Your task to perform on an android device: delete location history Image 0: 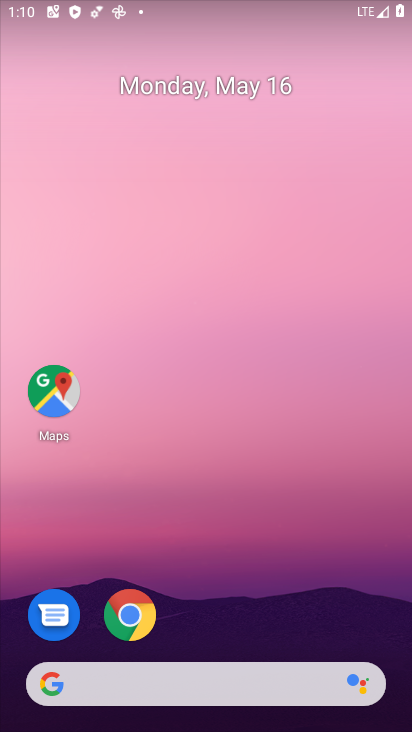
Step 0: drag from (185, 654) to (219, 184)
Your task to perform on an android device: delete location history Image 1: 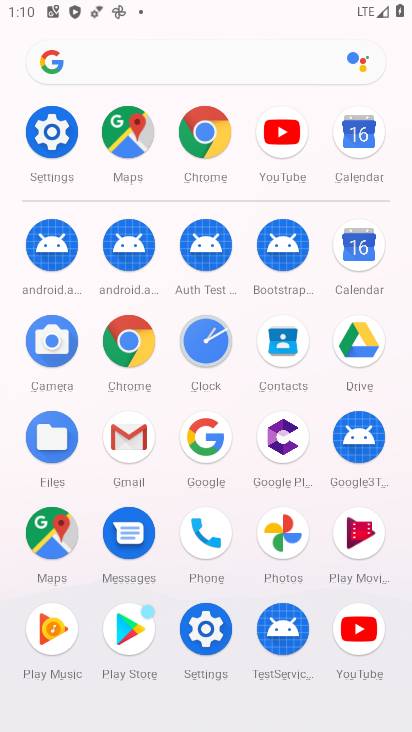
Step 1: drag from (225, 578) to (264, 469)
Your task to perform on an android device: delete location history Image 2: 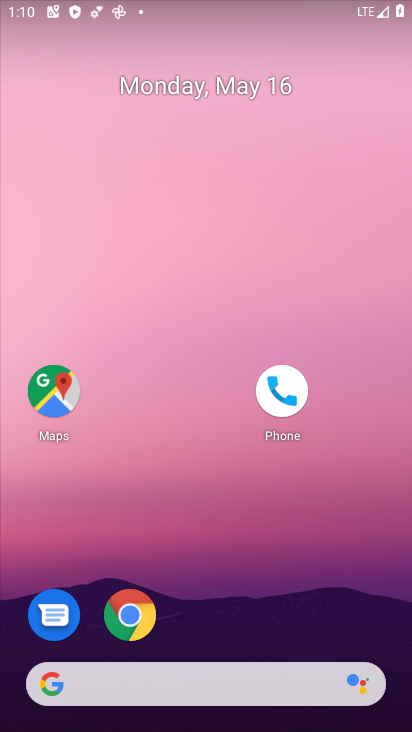
Step 2: drag from (297, 572) to (300, 193)
Your task to perform on an android device: delete location history Image 3: 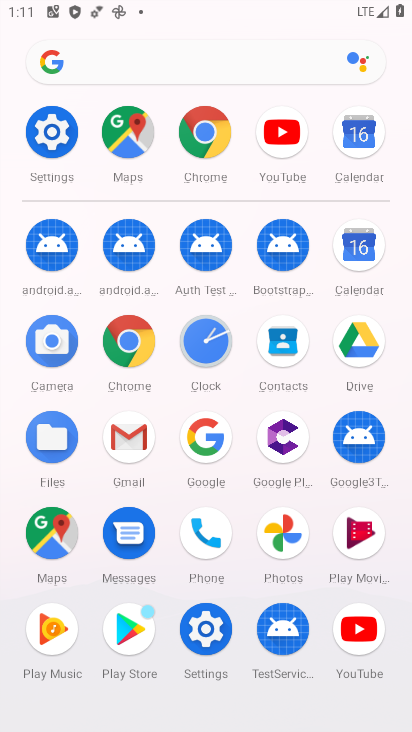
Step 3: drag from (146, 580) to (167, 459)
Your task to perform on an android device: delete location history Image 4: 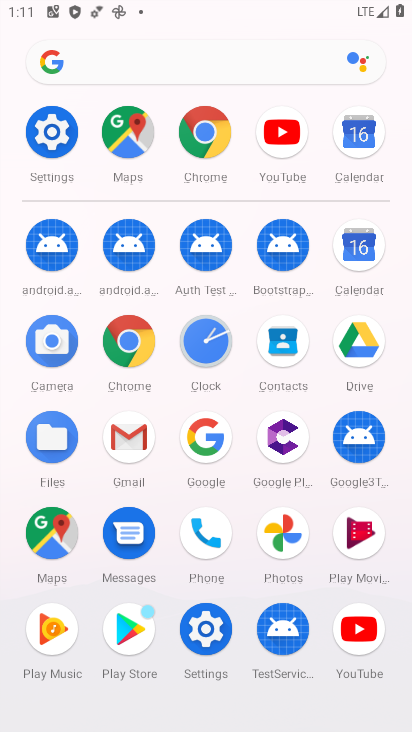
Step 4: click (48, 541)
Your task to perform on an android device: delete location history Image 5: 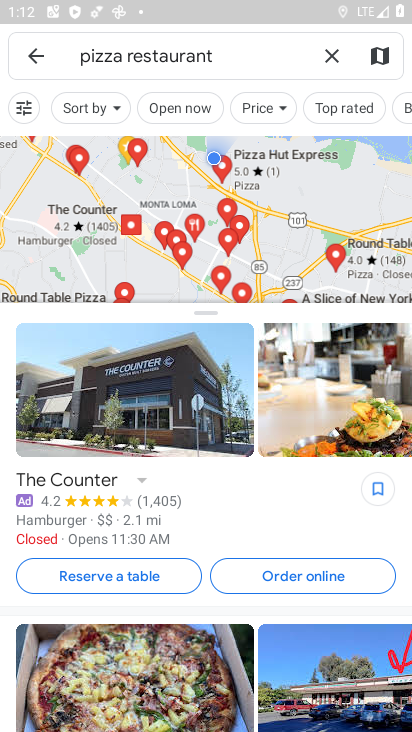
Step 5: press back button
Your task to perform on an android device: delete location history Image 6: 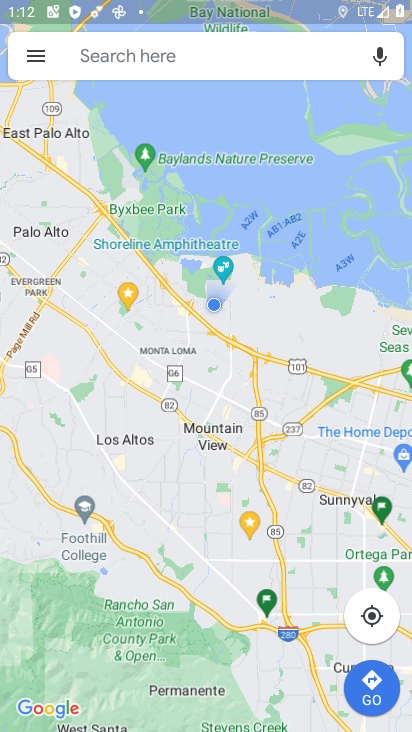
Step 6: click (38, 52)
Your task to perform on an android device: delete location history Image 7: 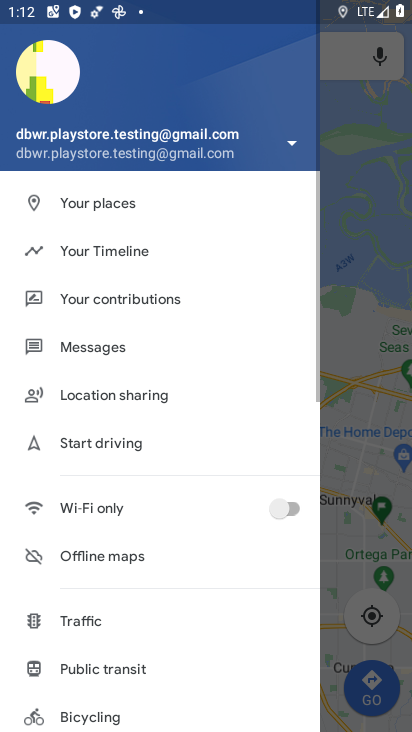
Step 7: click (113, 243)
Your task to perform on an android device: delete location history Image 8: 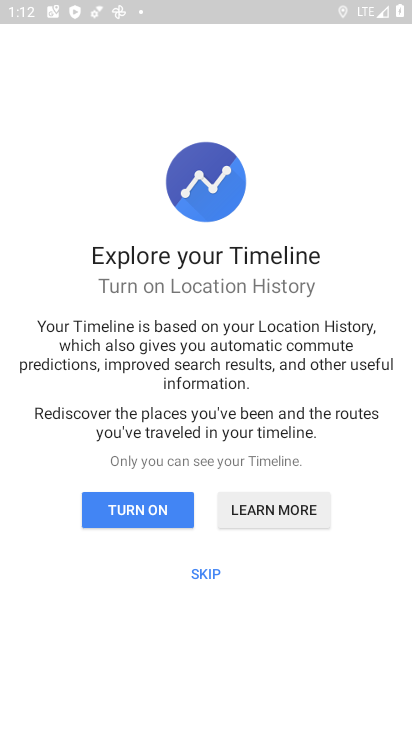
Step 8: click (217, 572)
Your task to perform on an android device: delete location history Image 9: 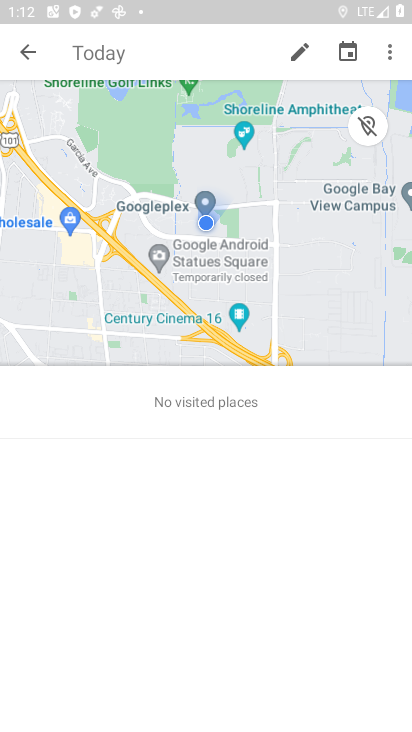
Step 9: click (387, 52)
Your task to perform on an android device: delete location history Image 10: 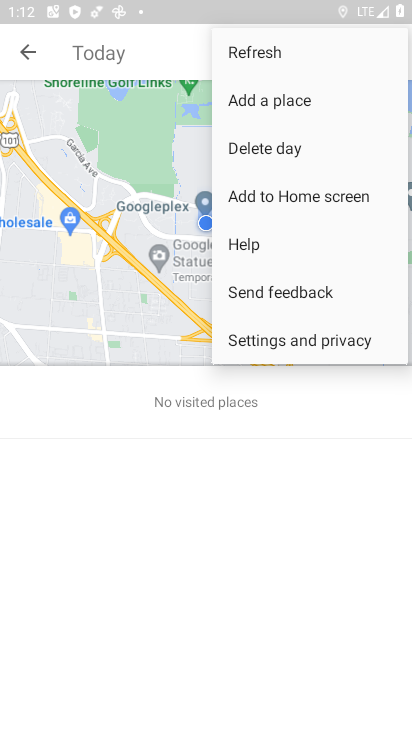
Step 10: click (313, 344)
Your task to perform on an android device: delete location history Image 11: 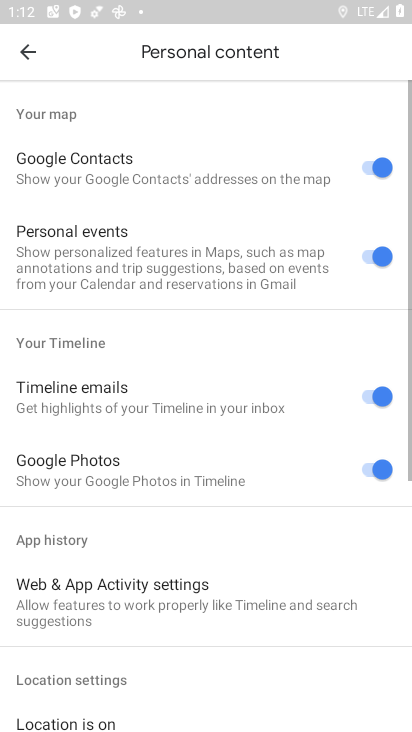
Step 11: drag from (244, 672) to (266, 69)
Your task to perform on an android device: delete location history Image 12: 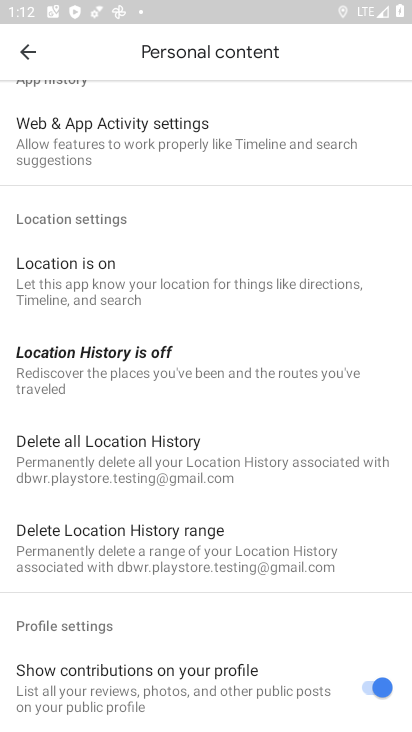
Step 12: click (107, 541)
Your task to perform on an android device: delete location history Image 13: 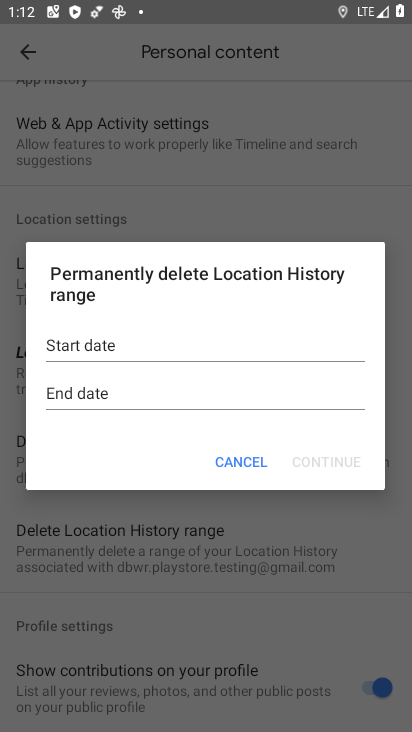
Step 13: click (238, 464)
Your task to perform on an android device: delete location history Image 14: 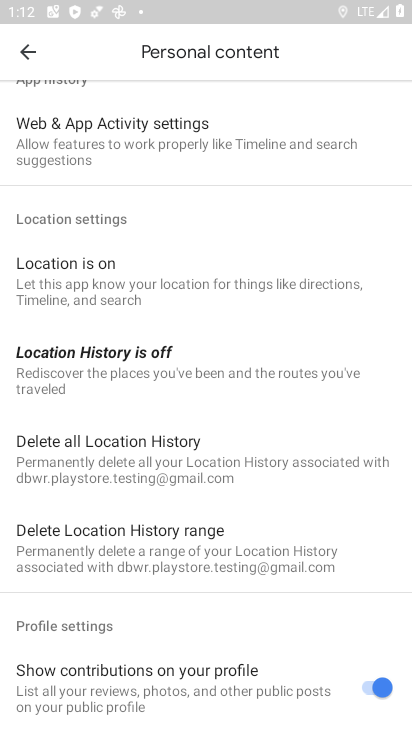
Step 14: click (159, 450)
Your task to perform on an android device: delete location history Image 15: 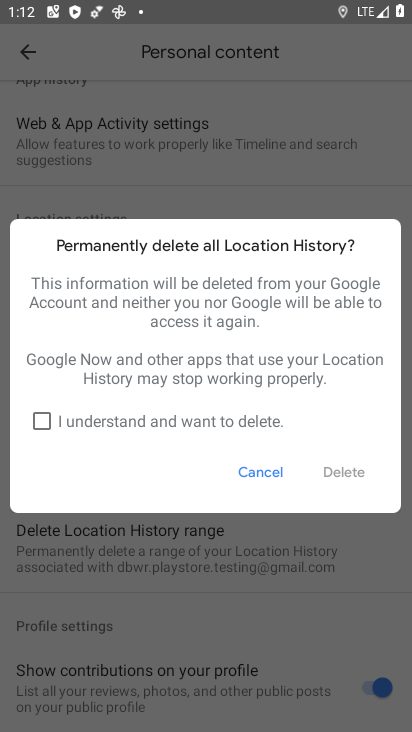
Step 15: click (52, 422)
Your task to perform on an android device: delete location history Image 16: 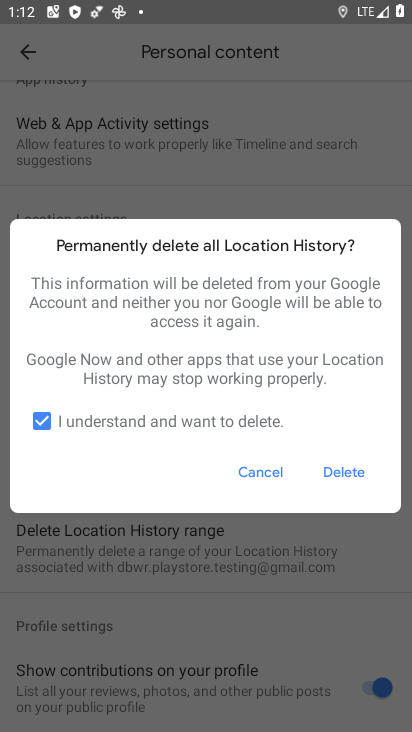
Step 16: click (339, 474)
Your task to perform on an android device: delete location history Image 17: 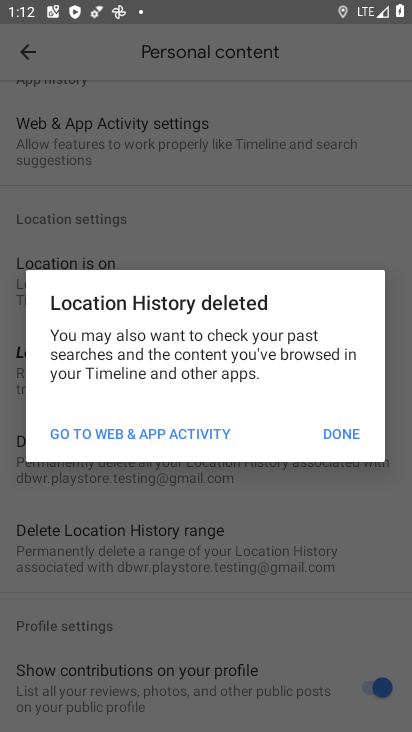
Step 17: click (336, 437)
Your task to perform on an android device: delete location history Image 18: 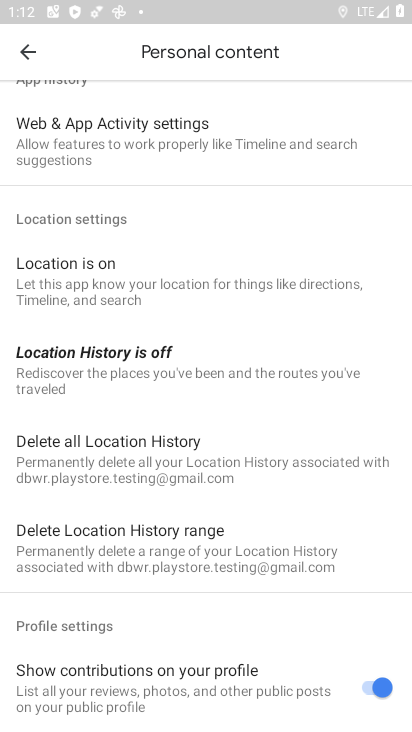
Step 18: task complete